Your task to perform on an android device: snooze an email in the gmail app Image 0: 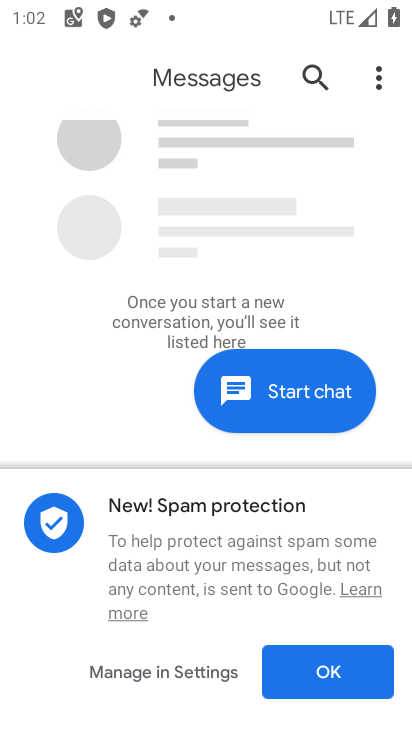
Step 0: press home button
Your task to perform on an android device: snooze an email in the gmail app Image 1: 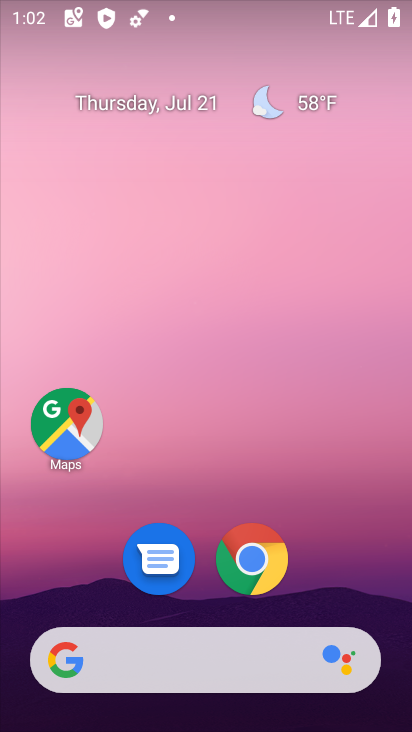
Step 1: drag from (376, 560) to (388, 101)
Your task to perform on an android device: snooze an email in the gmail app Image 2: 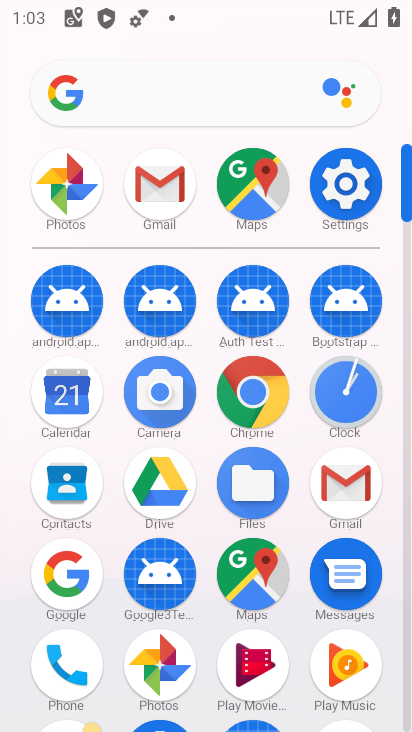
Step 2: click (356, 482)
Your task to perform on an android device: snooze an email in the gmail app Image 3: 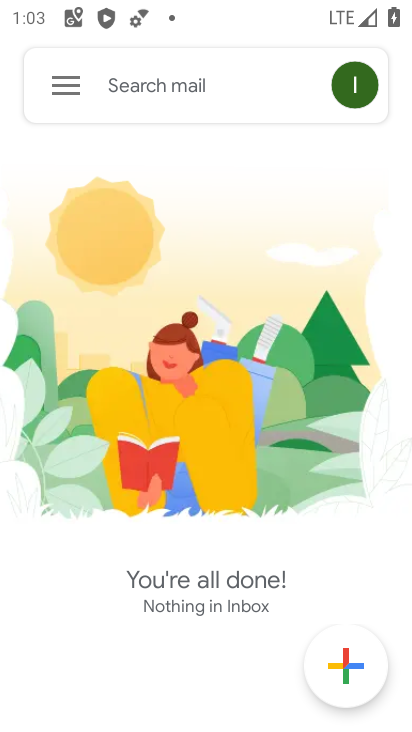
Step 3: click (65, 80)
Your task to perform on an android device: snooze an email in the gmail app Image 4: 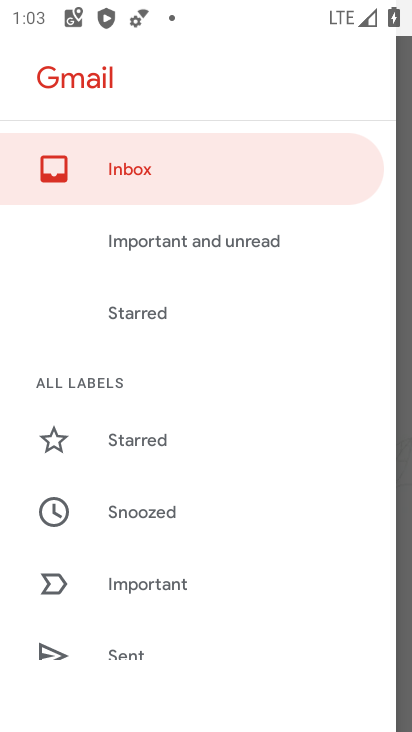
Step 4: drag from (273, 413) to (282, 297)
Your task to perform on an android device: snooze an email in the gmail app Image 5: 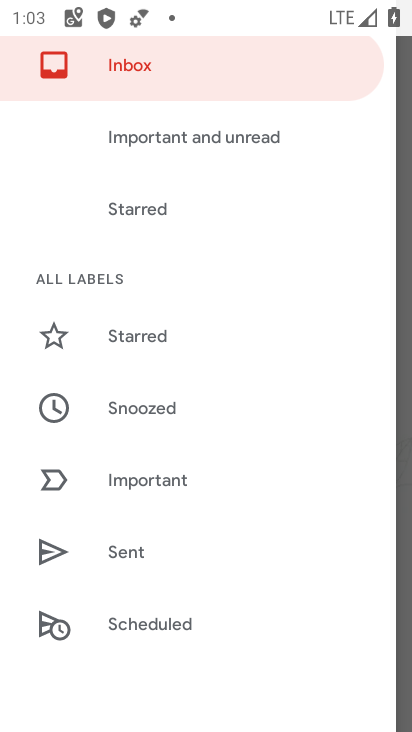
Step 5: drag from (326, 437) to (311, 318)
Your task to perform on an android device: snooze an email in the gmail app Image 6: 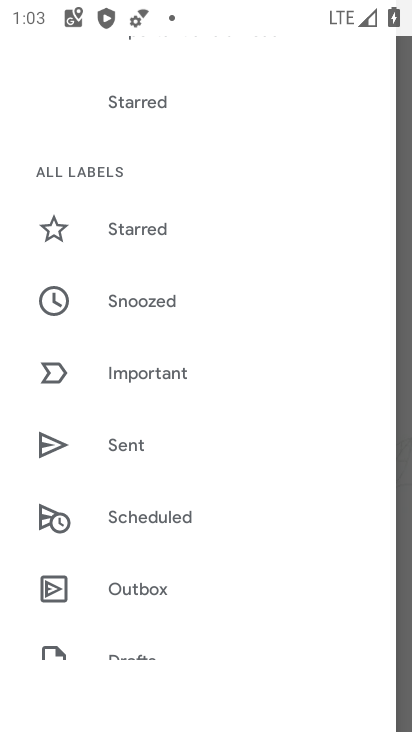
Step 6: drag from (323, 417) to (323, 307)
Your task to perform on an android device: snooze an email in the gmail app Image 7: 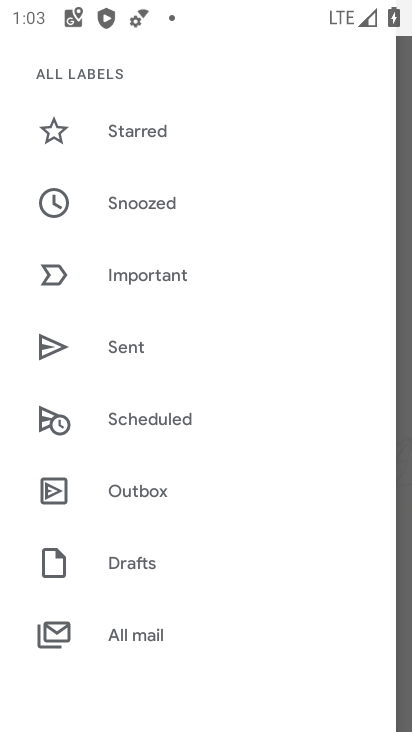
Step 7: drag from (317, 408) to (318, 314)
Your task to perform on an android device: snooze an email in the gmail app Image 8: 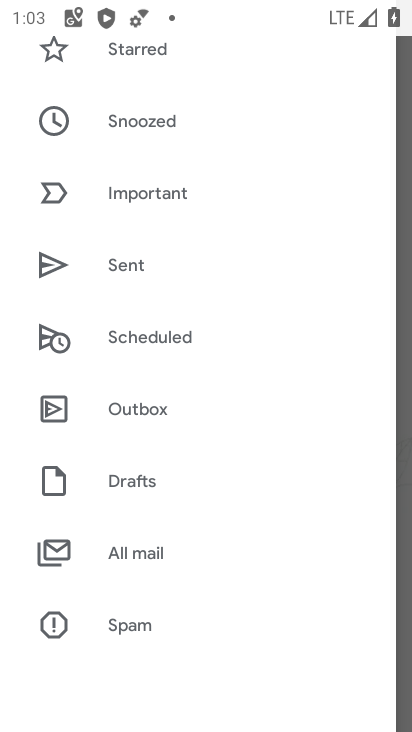
Step 8: drag from (318, 209) to (322, 319)
Your task to perform on an android device: snooze an email in the gmail app Image 9: 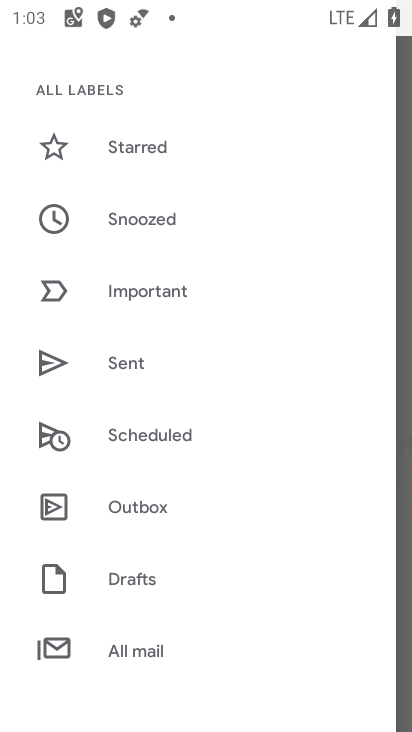
Step 9: drag from (312, 205) to (311, 421)
Your task to perform on an android device: snooze an email in the gmail app Image 10: 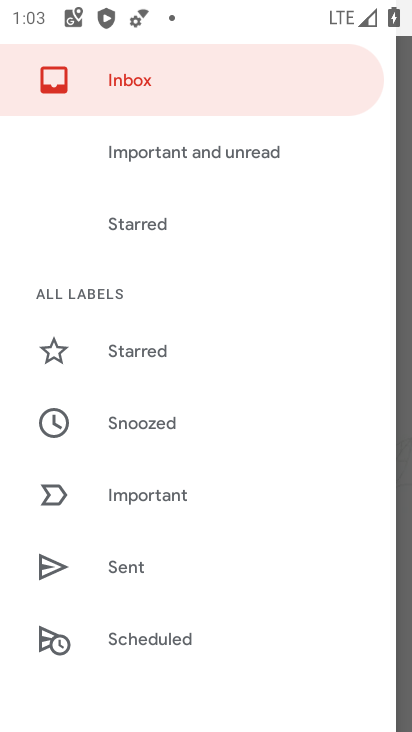
Step 10: click (223, 429)
Your task to perform on an android device: snooze an email in the gmail app Image 11: 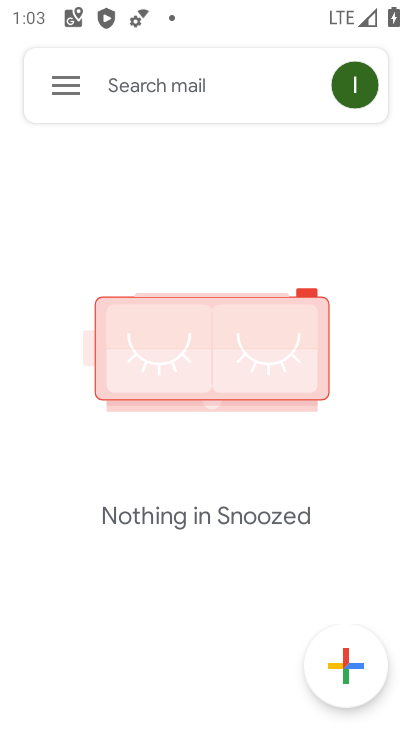
Step 11: task complete